Your task to perform on an android device: show emergency info Image 0: 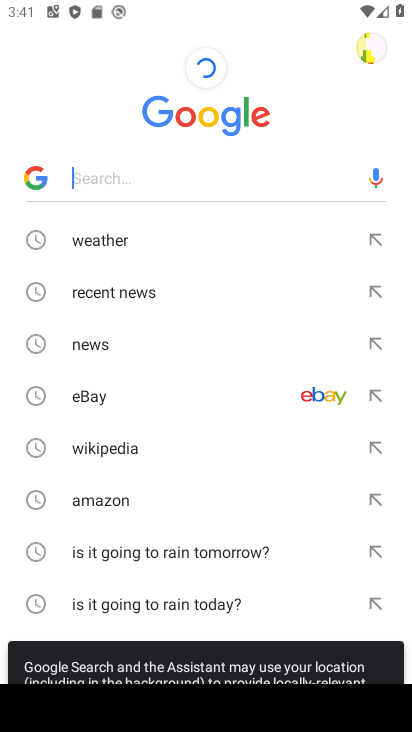
Step 0: press home button
Your task to perform on an android device: show emergency info Image 1: 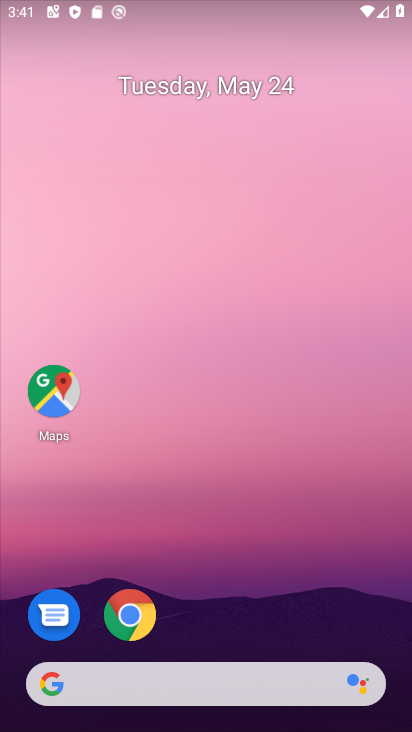
Step 1: drag from (207, 711) to (200, 176)
Your task to perform on an android device: show emergency info Image 2: 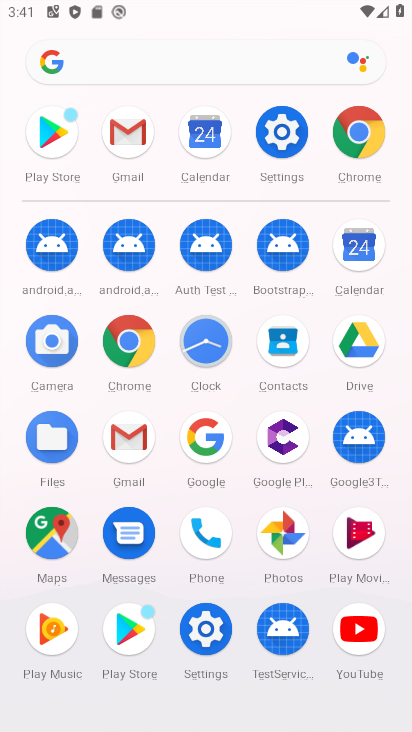
Step 2: click (286, 127)
Your task to perform on an android device: show emergency info Image 3: 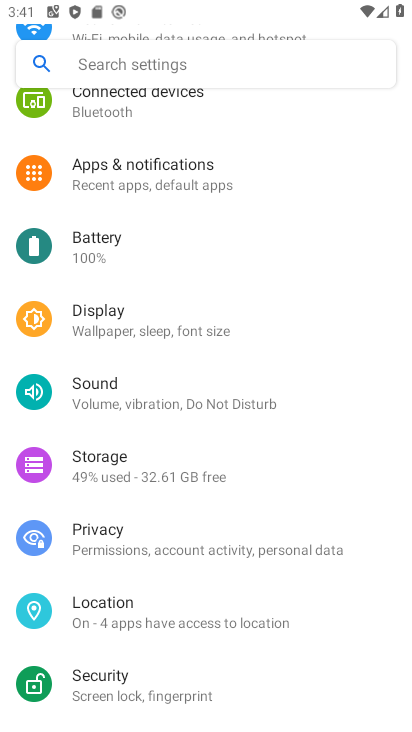
Step 3: drag from (155, 678) to (164, 267)
Your task to perform on an android device: show emergency info Image 4: 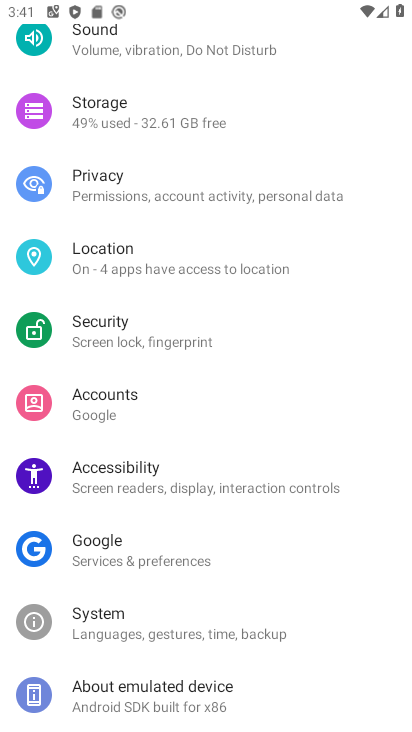
Step 4: drag from (183, 672) to (184, 276)
Your task to perform on an android device: show emergency info Image 5: 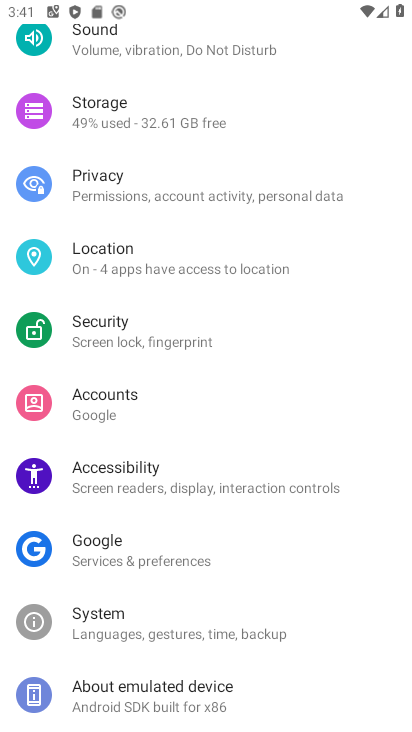
Step 5: click (159, 690)
Your task to perform on an android device: show emergency info Image 6: 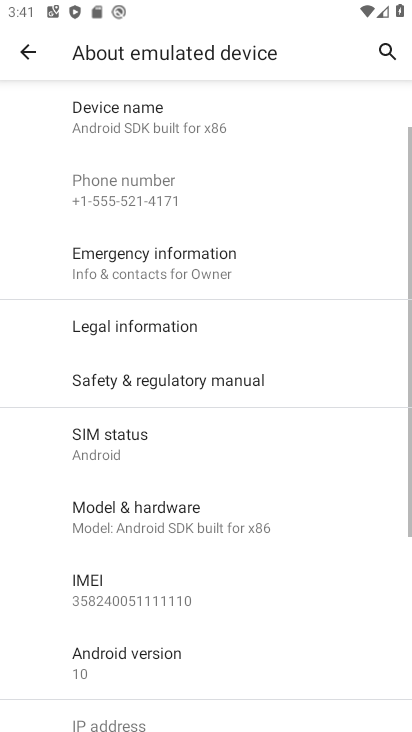
Step 6: click (172, 272)
Your task to perform on an android device: show emergency info Image 7: 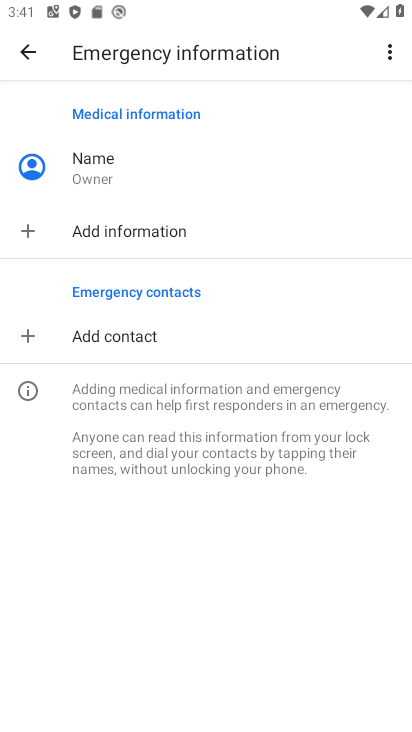
Step 7: task complete